Your task to perform on an android device: Show me recent news Image 0: 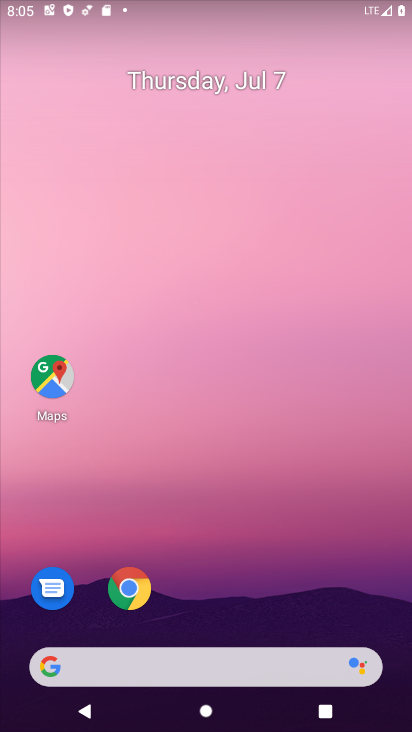
Step 0: drag from (216, 628) to (245, 202)
Your task to perform on an android device: Show me recent news Image 1: 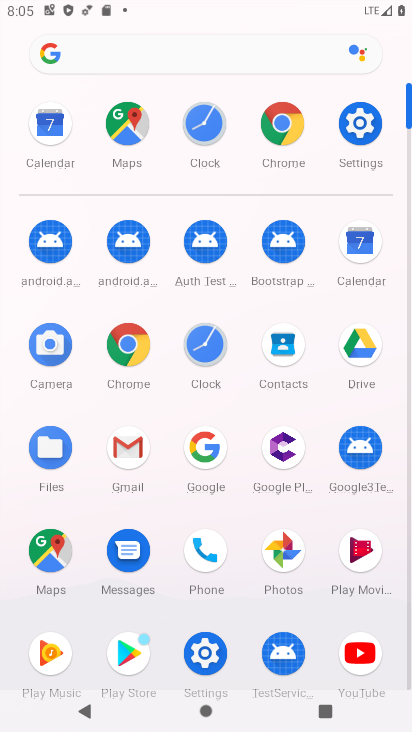
Step 1: click (272, 122)
Your task to perform on an android device: Show me recent news Image 2: 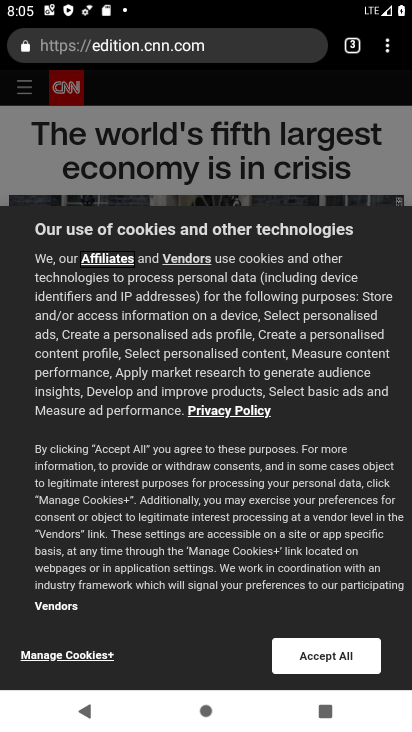
Step 2: click (393, 44)
Your task to perform on an android device: Show me recent news Image 3: 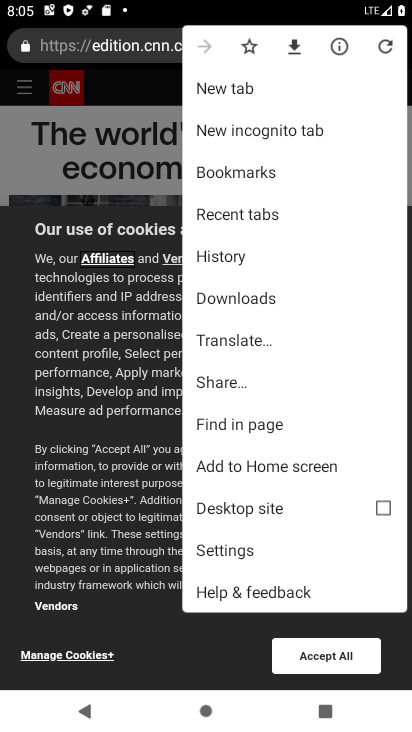
Step 3: click (247, 97)
Your task to perform on an android device: Show me recent news Image 4: 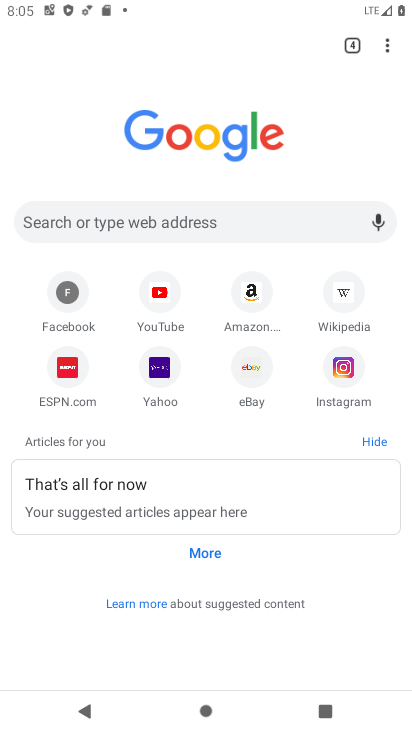
Step 4: click (236, 214)
Your task to perform on an android device: Show me recent news Image 5: 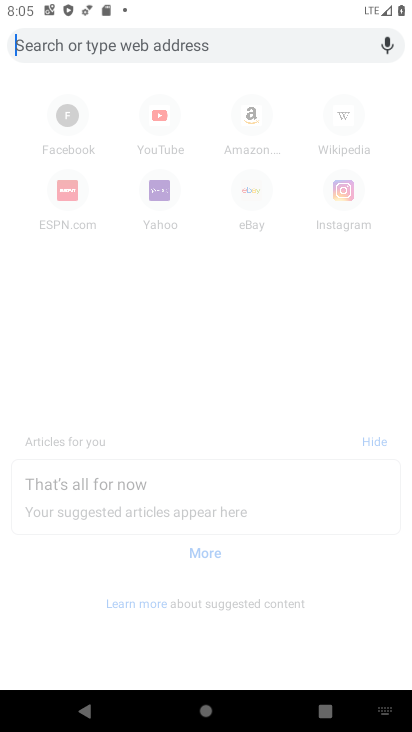
Step 5: click (210, 39)
Your task to perform on an android device: Show me recent news Image 6: 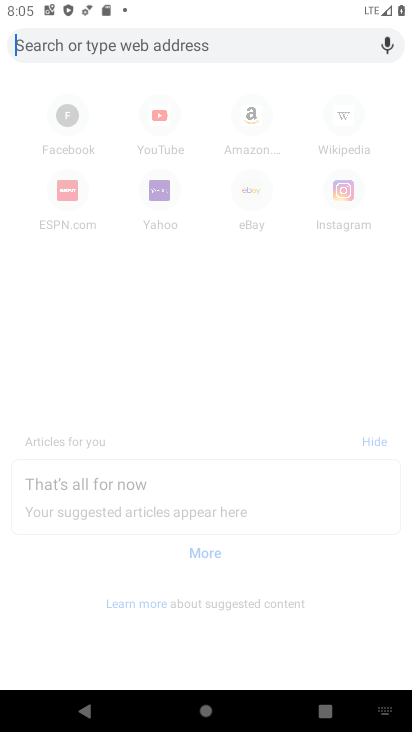
Step 6: type "Show me recent news "
Your task to perform on an android device: Show me recent news Image 7: 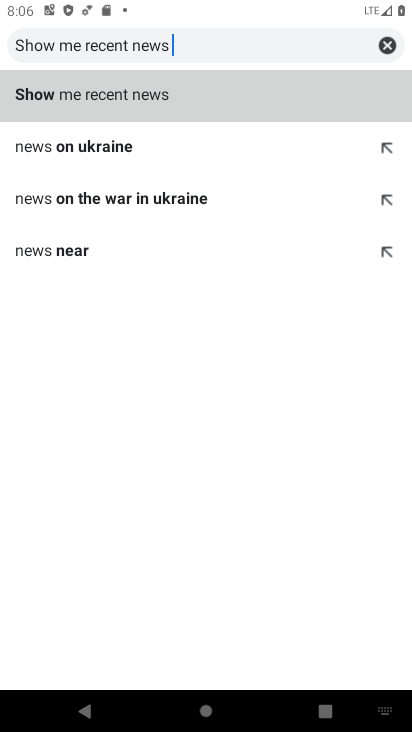
Step 7: click (221, 91)
Your task to perform on an android device: Show me recent news Image 8: 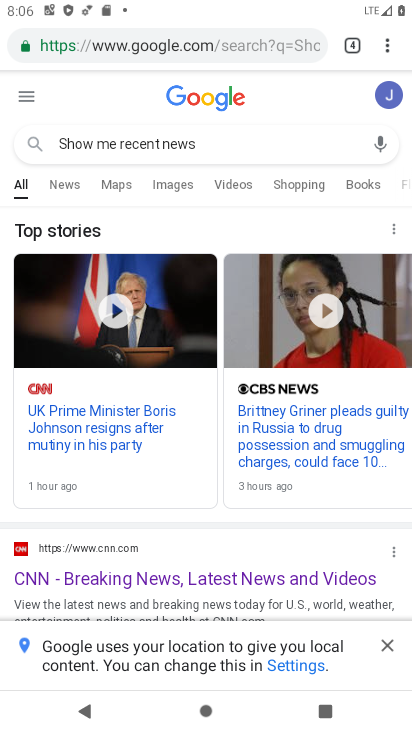
Step 8: task complete